Your task to perform on an android device: all mails in gmail Image 0: 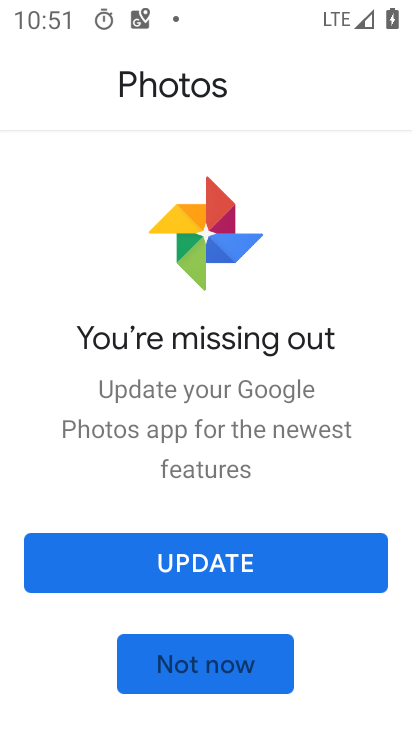
Step 0: press home button
Your task to perform on an android device: all mails in gmail Image 1: 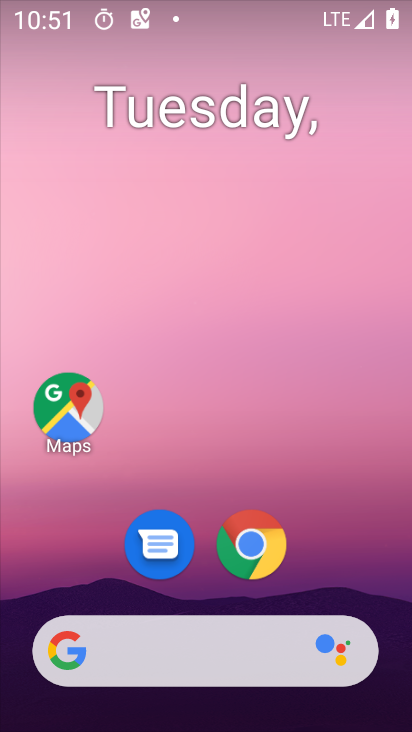
Step 1: drag from (383, 576) to (225, 15)
Your task to perform on an android device: all mails in gmail Image 2: 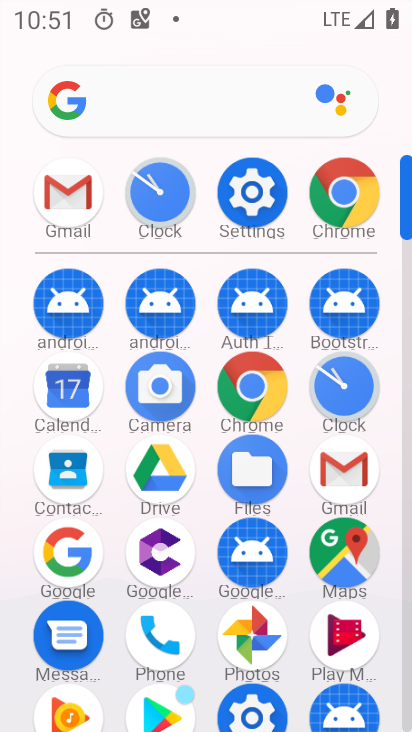
Step 2: click (71, 209)
Your task to perform on an android device: all mails in gmail Image 3: 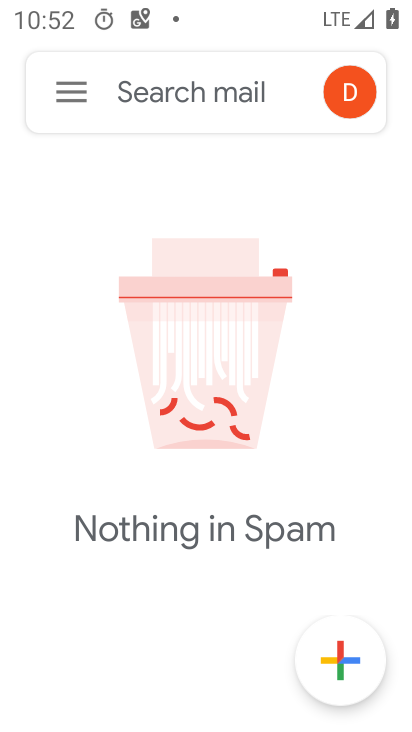
Step 3: click (72, 80)
Your task to perform on an android device: all mails in gmail Image 4: 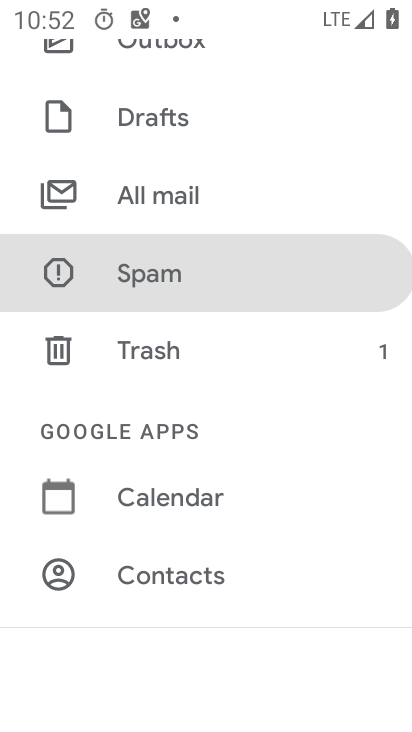
Step 4: click (191, 205)
Your task to perform on an android device: all mails in gmail Image 5: 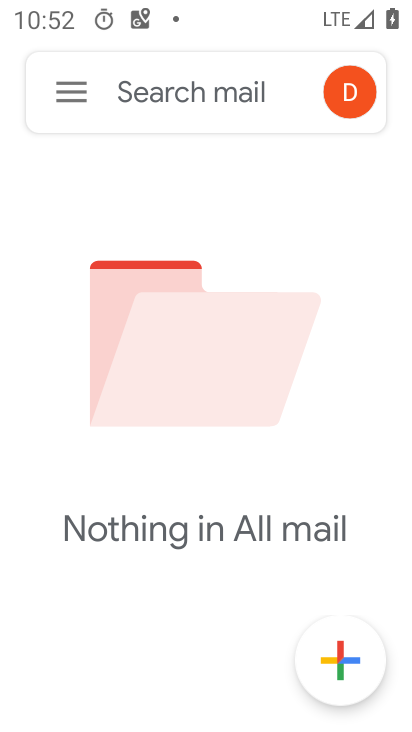
Step 5: task complete